Your task to perform on an android device: Do I have any events this weekend? Image 0: 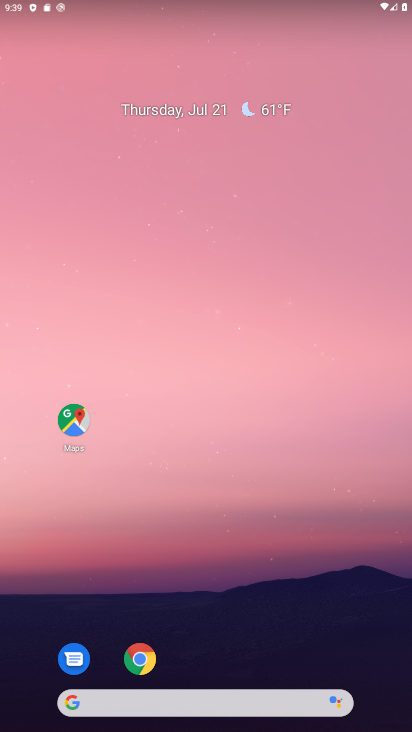
Step 0: click (148, 650)
Your task to perform on an android device: Do I have any events this weekend? Image 1: 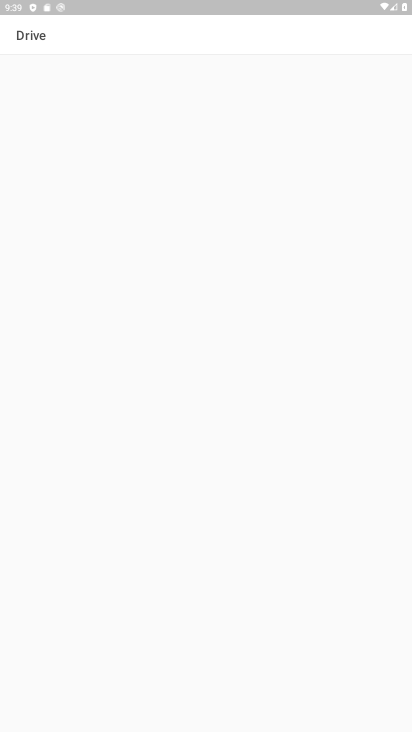
Step 1: click (142, 658)
Your task to perform on an android device: Do I have any events this weekend? Image 2: 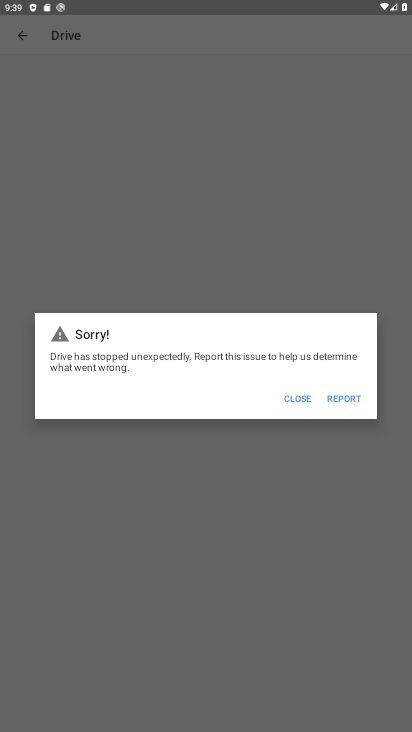
Step 2: press home button
Your task to perform on an android device: Do I have any events this weekend? Image 3: 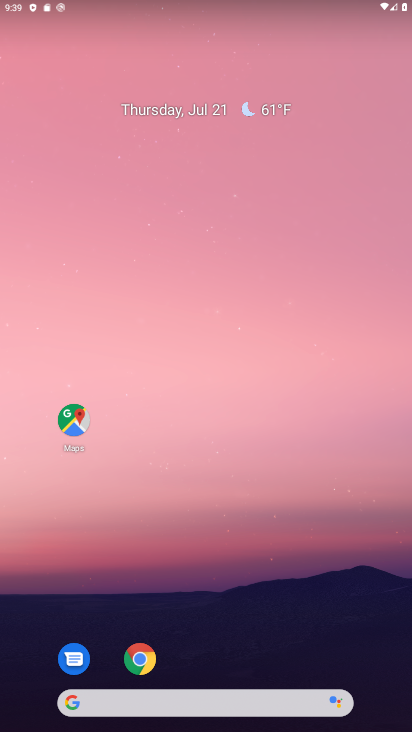
Step 3: drag from (36, 575) to (237, 33)
Your task to perform on an android device: Do I have any events this weekend? Image 4: 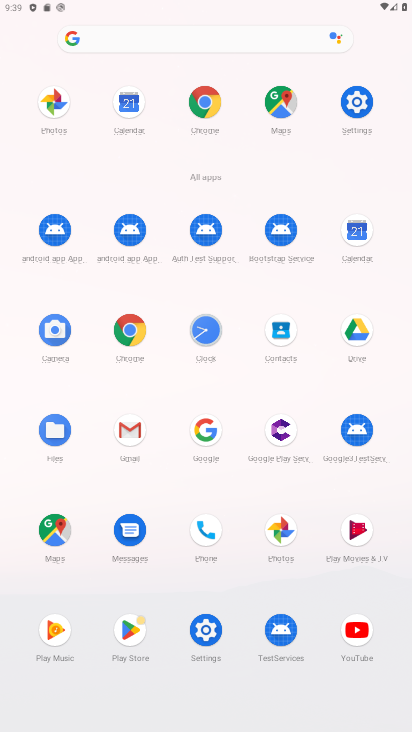
Step 4: click (361, 237)
Your task to perform on an android device: Do I have any events this weekend? Image 5: 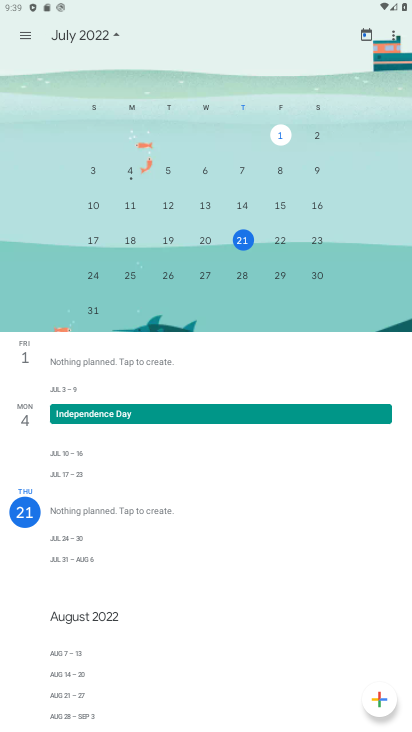
Step 5: task complete